Your task to perform on an android device: Go to Maps Image 0: 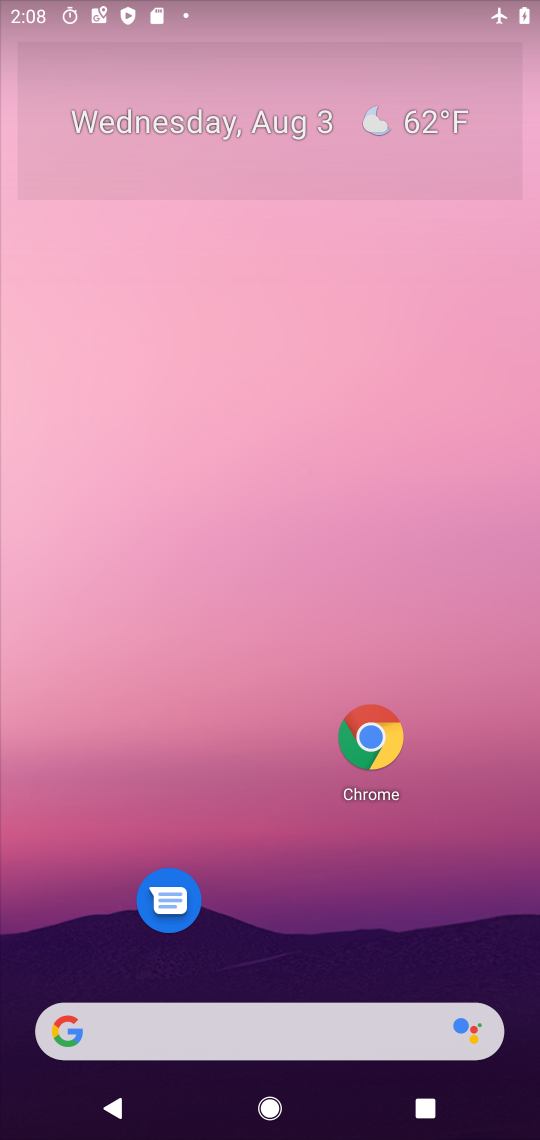
Step 0: drag from (272, 878) to (244, 87)
Your task to perform on an android device: Go to Maps Image 1: 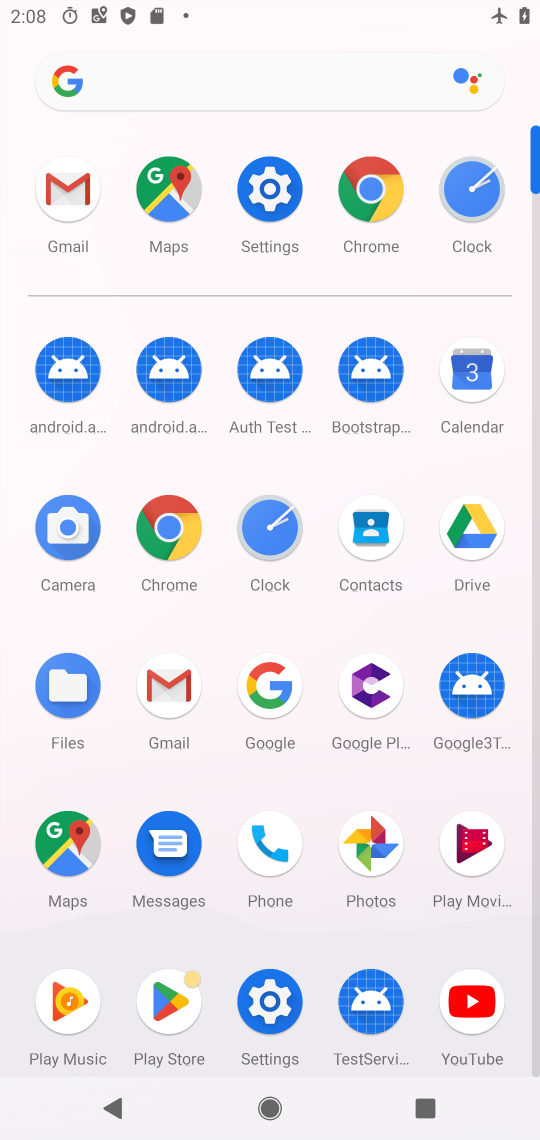
Step 1: click (65, 842)
Your task to perform on an android device: Go to Maps Image 2: 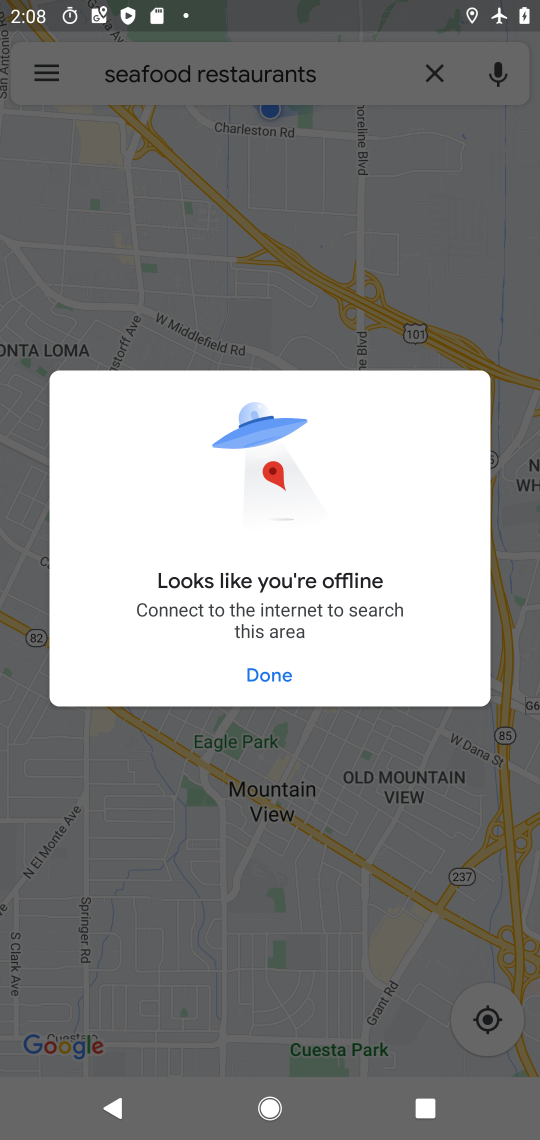
Step 2: click (277, 681)
Your task to perform on an android device: Go to Maps Image 3: 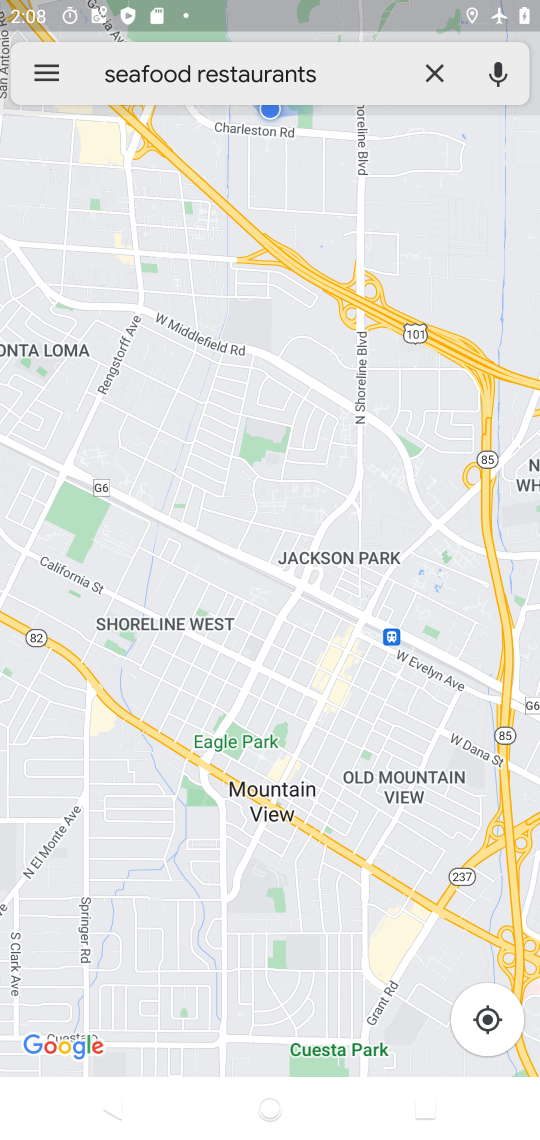
Step 3: task complete